Your task to perform on an android device: turn pop-ups on in chrome Image 0: 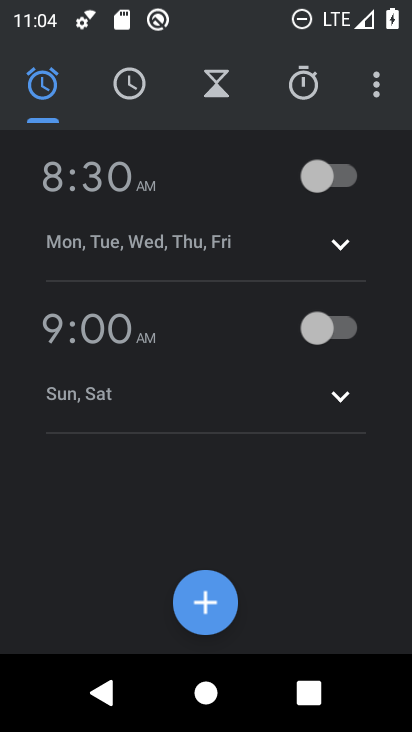
Step 0: press back button
Your task to perform on an android device: turn pop-ups on in chrome Image 1: 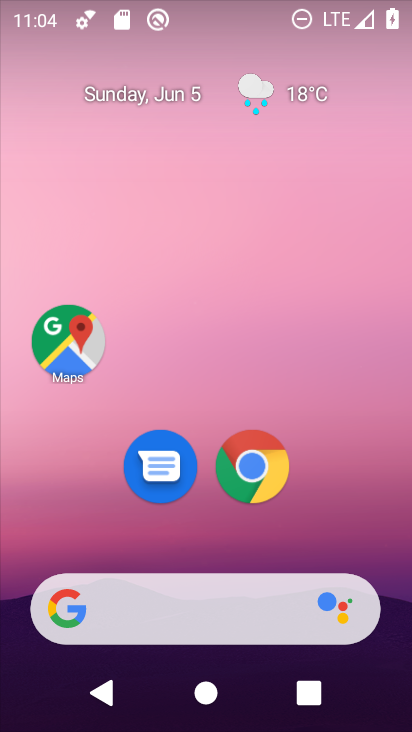
Step 1: drag from (345, 543) to (261, 6)
Your task to perform on an android device: turn pop-ups on in chrome Image 2: 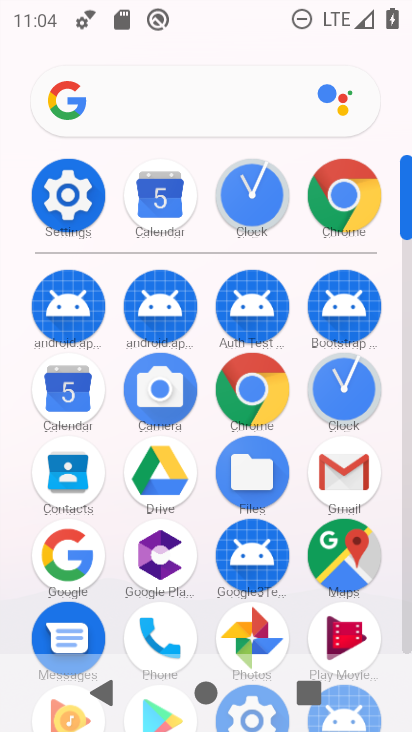
Step 2: drag from (18, 512) to (13, 213)
Your task to perform on an android device: turn pop-ups on in chrome Image 3: 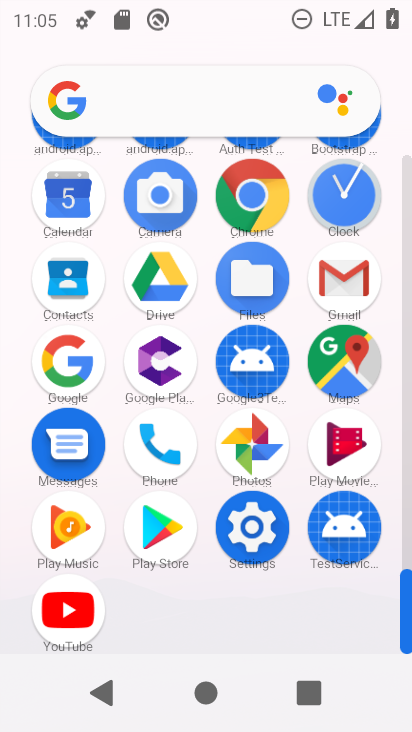
Step 3: click (248, 195)
Your task to perform on an android device: turn pop-ups on in chrome Image 4: 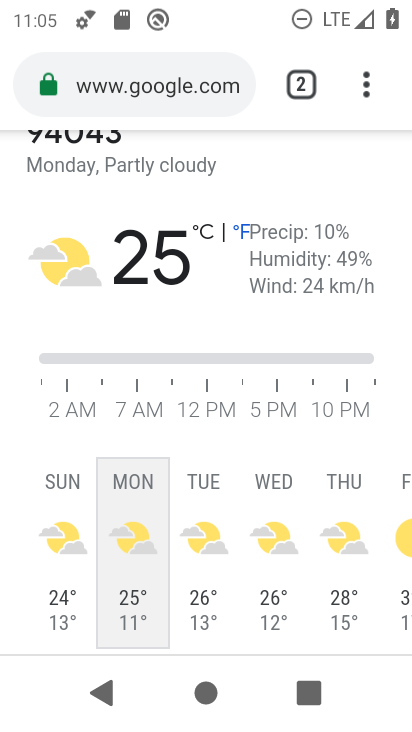
Step 4: drag from (373, 85) to (179, 505)
Your task to perform on an android device: turn pop-ups on in chrome Image 5: 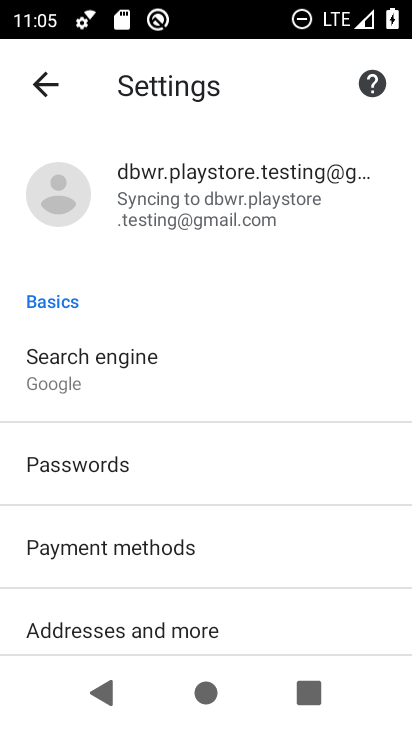
Step 5: drag from (200, 517) to (208, 272)
Your task to perform on an android device: turn pop-ups on in chrome Image 6: 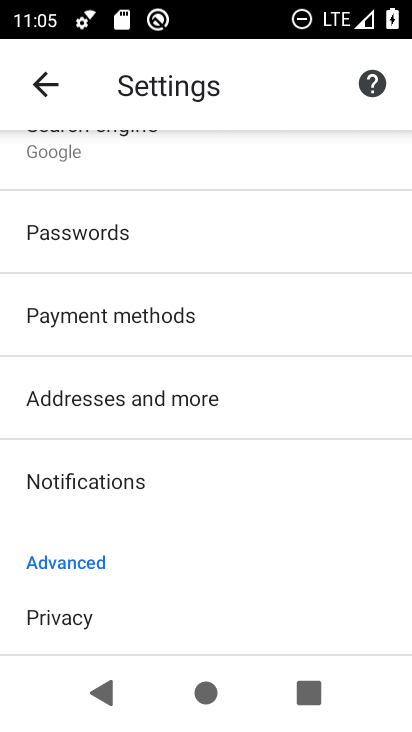
Step 6: drag from (270, 240) to (230, 568)
Your task to perform on an android device: turn pop-ups on in chrome Image 7: 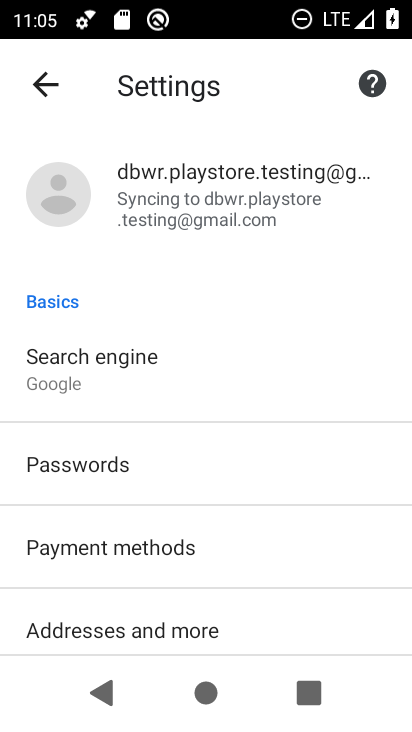
Step 7: drag from (209, 547) to (202, 198)
Your task to perform on an android device: turn pop-ups on in chrome Image 8: 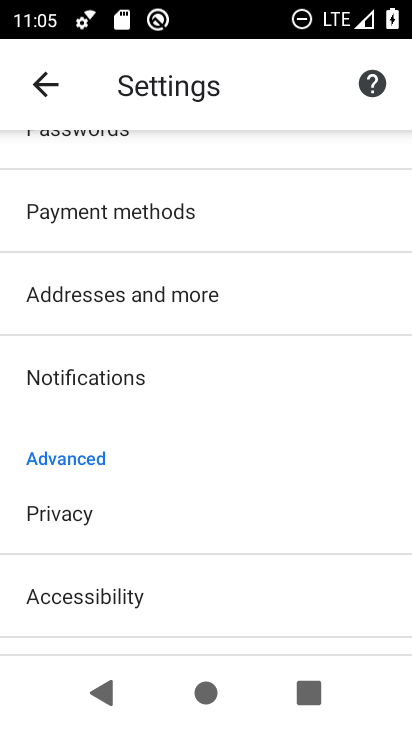
Step 8: drag from (222, 538) to (225, 237)
Your task to perform on an android device: turn pop-ups on in chrome Image 9: 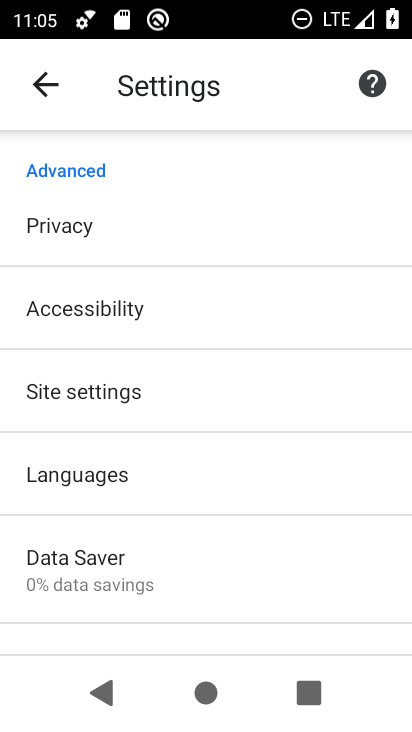
Step 9: click (166, 394)
Your task to perform on an android device: turn pop-ups on in chrome Image 10: 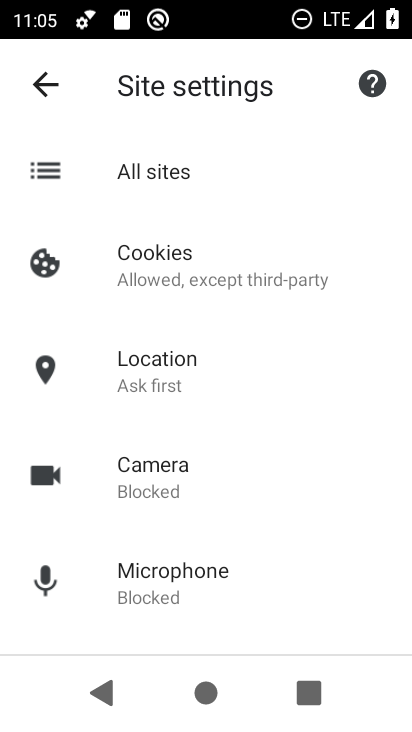
Step 10: drag from (234, 499) to (269, 193)
Your task to perform on an android device: turn pop-ups on in chrome Image 11: 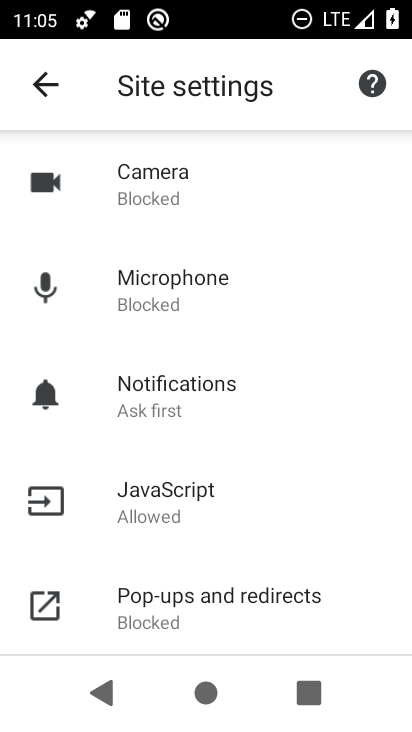
Step 11: click (226, 594)
Your task to perform on an android device: turn pop-ups on in chrome Image 12: 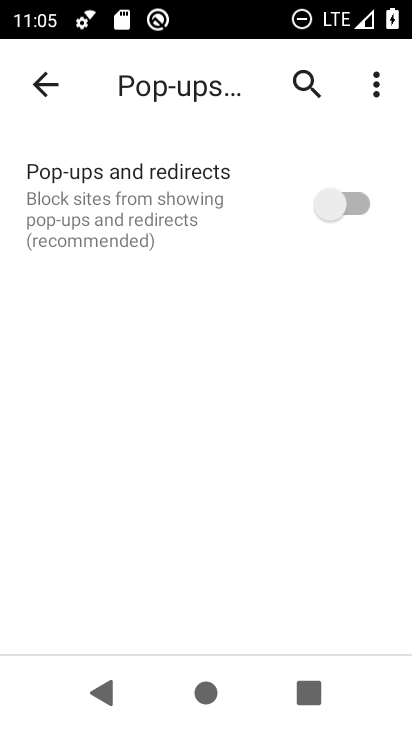
Step 12: click (346, 202)
Your task to perform on an android device: turn pop-ups on in chrome Image 13: 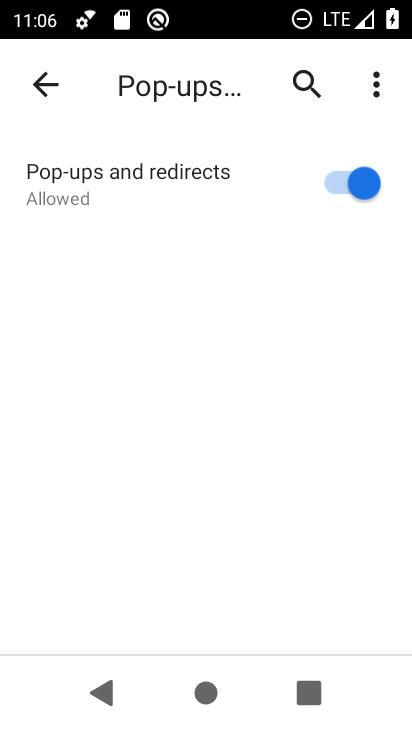
Step 13: task complete